Your task to perform on an android device: turn on improve location accuracy Image 0: 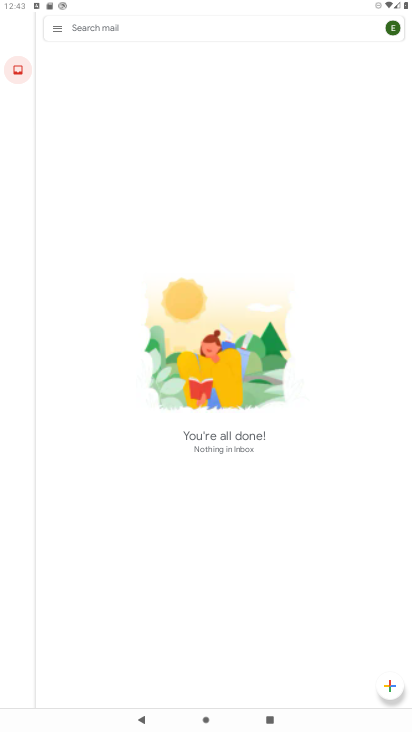
Step 0: press home button
Your task to perform on an android device: turn on improve location accuracy Image 1: 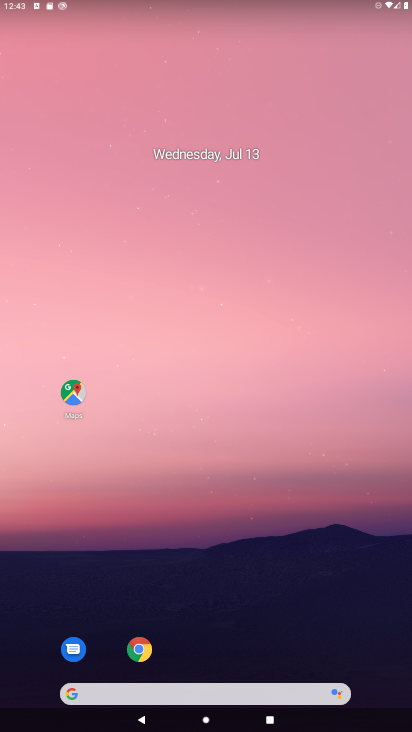
Step 1: drag from (378, 654) to (300, 175)
Your task to perform on an android device: turn on improve location accuracy Image 2: 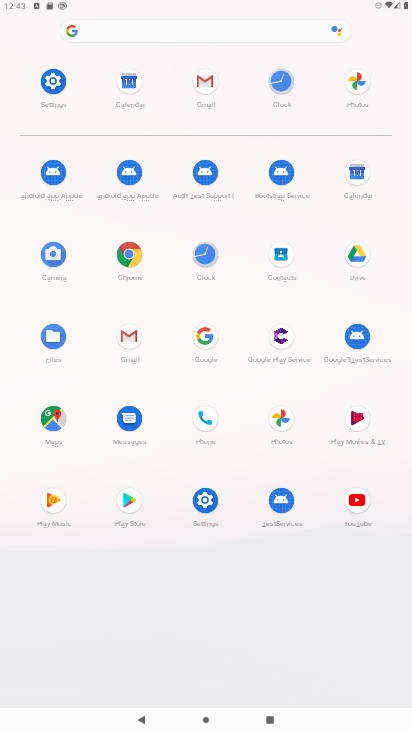
Step 2: click (202, 500)
Your task to perform on an android device: turn on improve location accuracy Image 3: 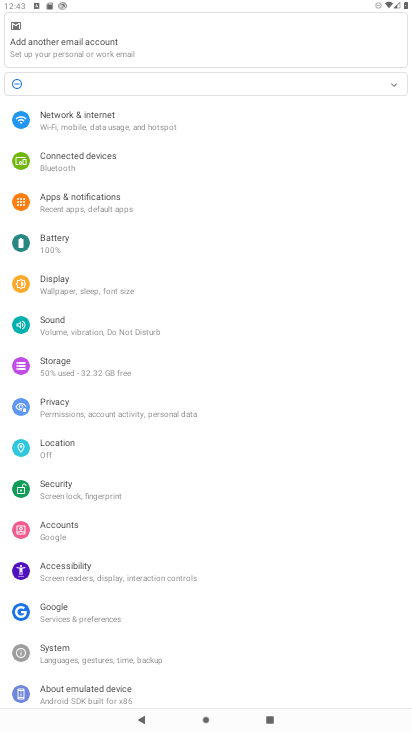
Step 3: click (51, 448)
Your task to perform on an android device: turn on improve location accuracy Image 4: 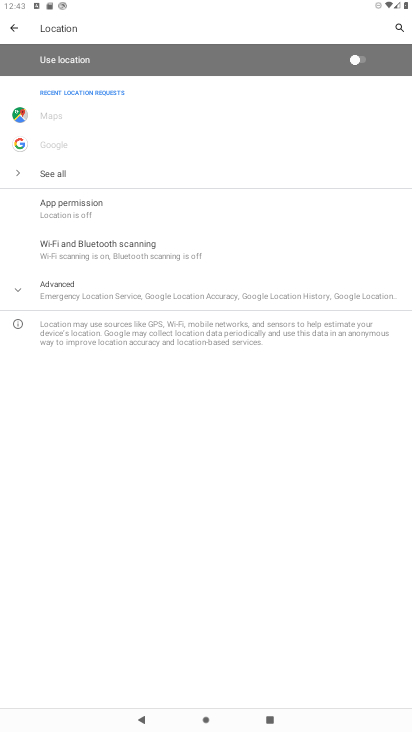
Step 4: click (16, 290)
Your task to perform on an android device: turn on improve location accuracy Image 5: 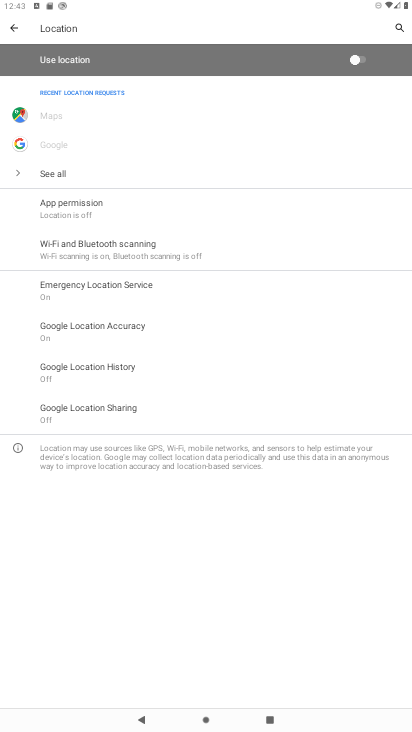
Step 5: click (81, 328)
Your task to perform on an android device: turn on improve location accuracy Image 6: 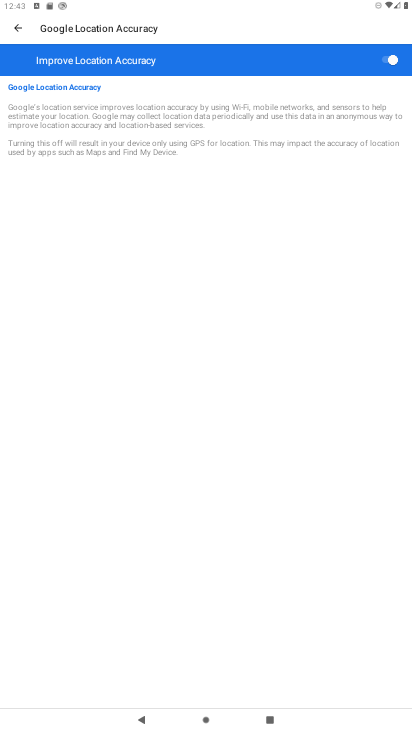
Step 6: task complete